Your task to perform on an android device: Open Wikipedia Image 0: 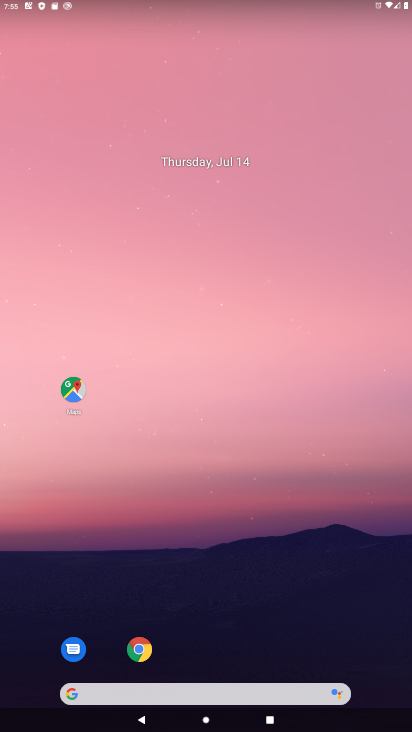
Step 0: press home button
Your task to perform on an android device: Open Wikipedia Image 1: 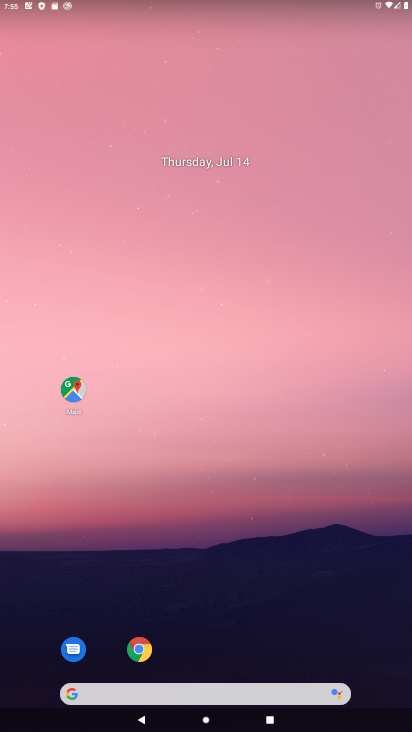
Step 1: drag from (221, 653) to (235, 35)
Your task to perform on an android device: Open Wikipedia Image 2: 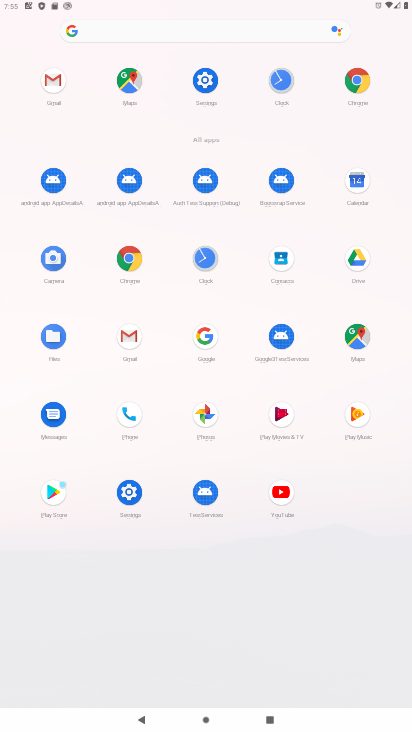
Step 2: click (124, 252)
Your task to perform on an android device: Open Wikipedia Image 3: 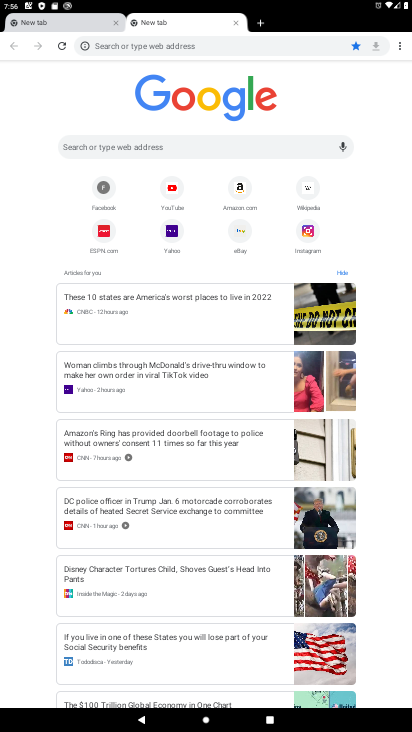
Step 3: click (306, 184)
Your task to perform on an android device: Open Wikipedia Image 4: 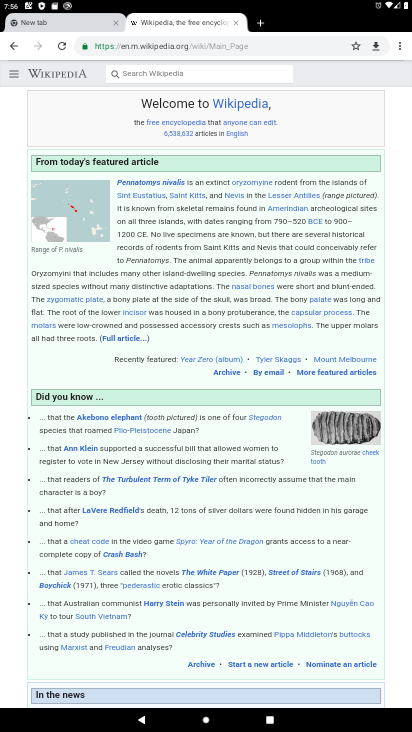
Step 4: task complete